Your task to perform on an android device: turn notification dots off Image 0: 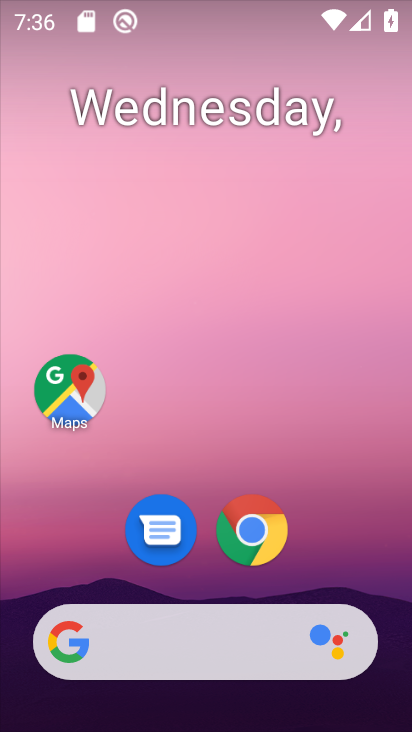
Step 0: drag from (399, 632) to (281, 79)
Your task to perform on an android device: turn notification dots off Image 1: 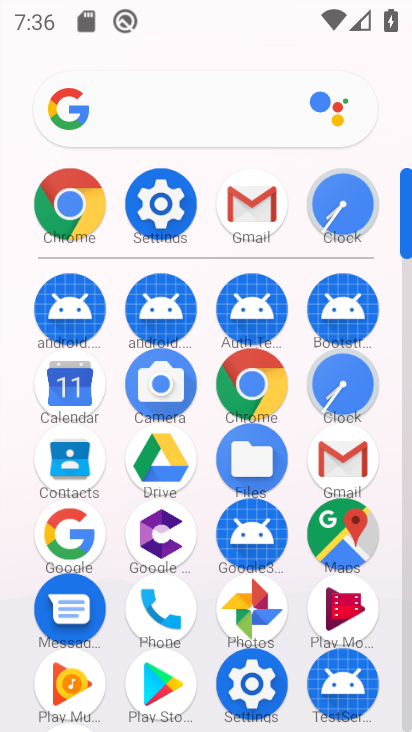
Step 1: click (233, 692)
Your task to perform on an android device: turn notification dots off Image 2: 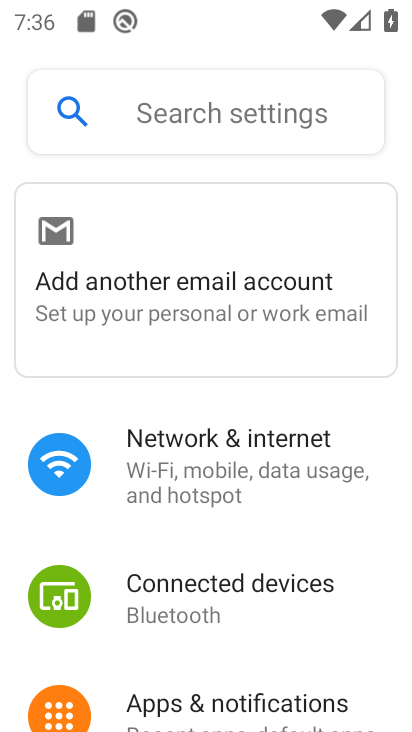
Step 2: click (210, 702)
Your task to perform on an android device: turn notification dots off Image 3: 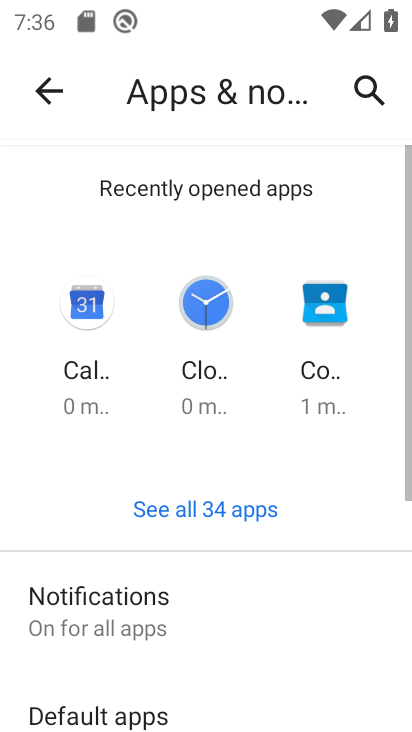
Step 3: click (154, 593)
Your task to perform on an android device: turn notification dots off Image 4: 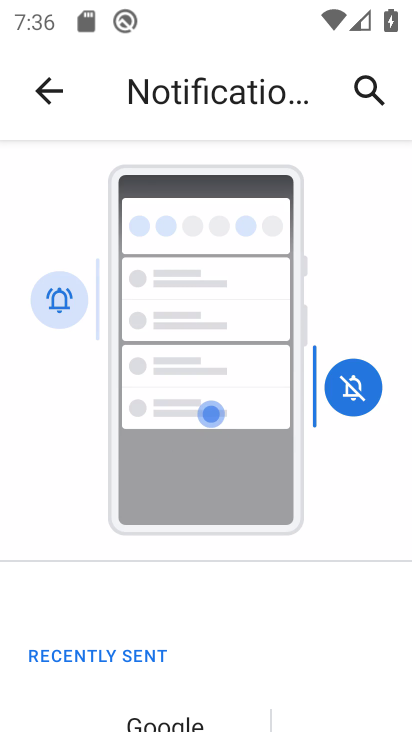
Step 4: drag from (240, 659) to (180, 116)
Your task to perform on an android device: turn notification dots off Image 5: 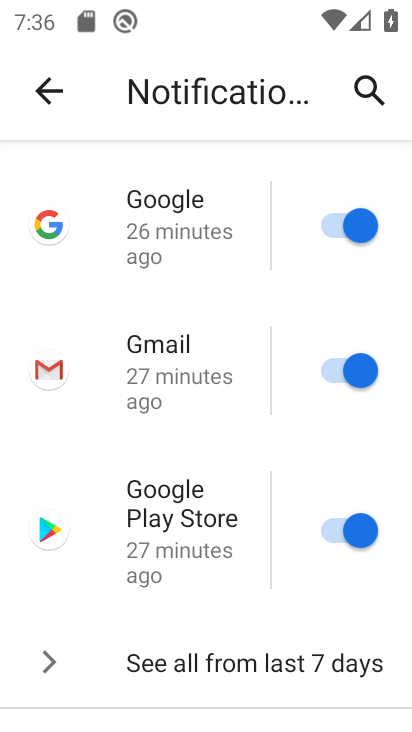
Step 5: drag from (219, 650) to (191, 77)
Your task to perform on an android device: turn notification dots off Image 6: 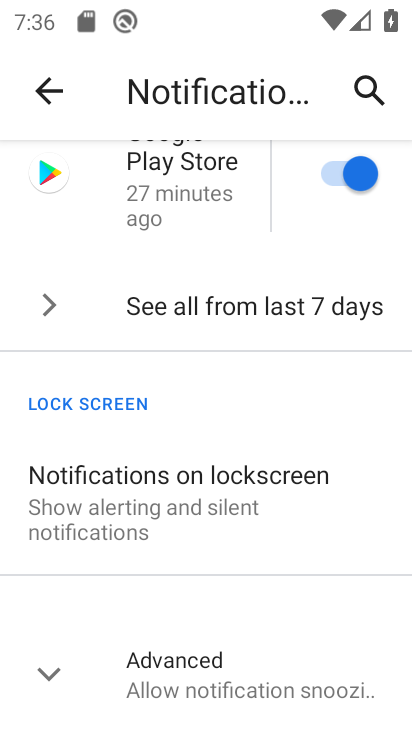
Step 6: click (50, 685)
Your task to perform on an android device: turn notification dots off Image 7: 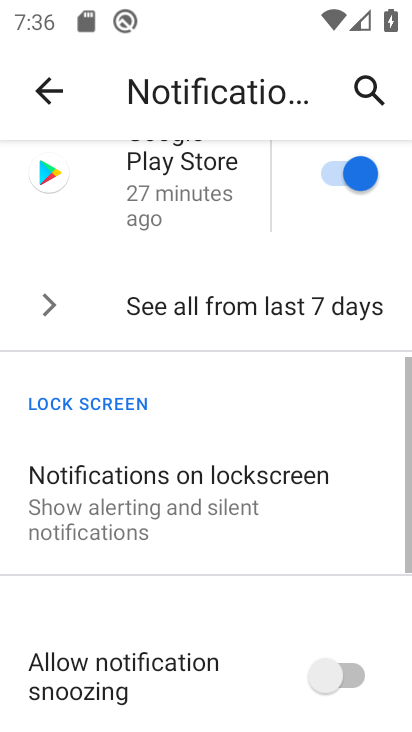
Step 7: drag from (134, 700) to (184, 264)
Your task to perform on an android device: turn notification dots off Image 8: 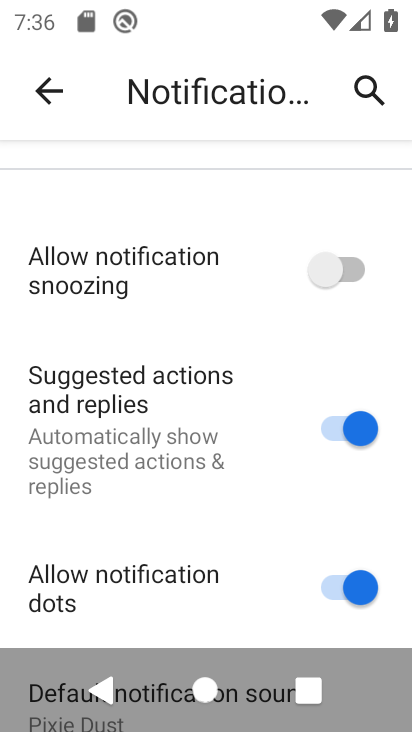
Step 8: drag from (235, 595) to (259, 312)
Your task to perform on an android device: turn notification dots off Image 9: 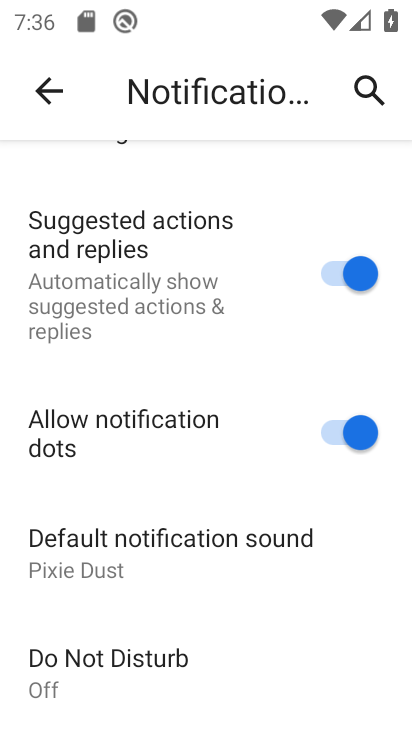
Step 9: click (277, 429)
Your task to perform on an android device: turn notification dots off Image 10: 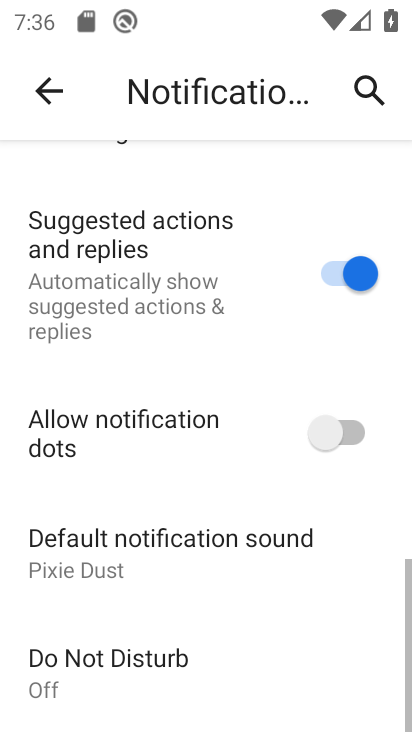
Step 10: task complete